Your task to perform on an android device: Open Google Chrome and click the shortcut for Amazon.com Image 0: 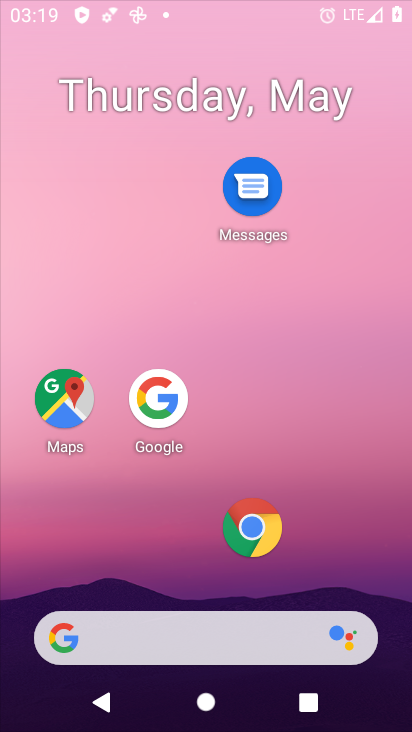
Step 0: drag from (245, 108) to (224, 154)
Your task to perform on an android device: Open Google Chrome and click the shortcut for Amazon.com Image 1: 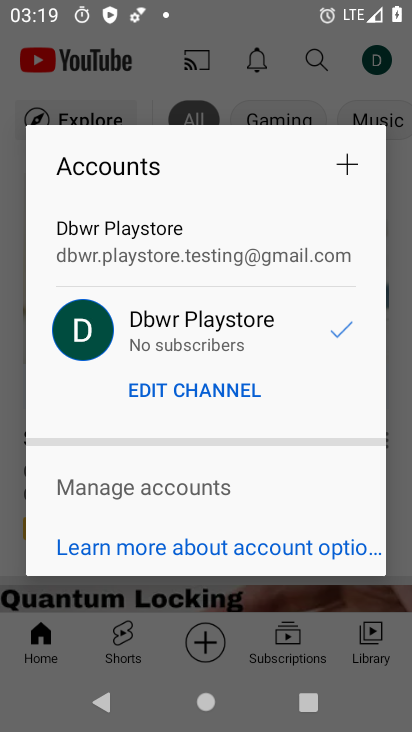
Step 1: press home button
Your task to perform on an android device: Open Google Chrome and click the shortcut for Amazon.com Image 2: 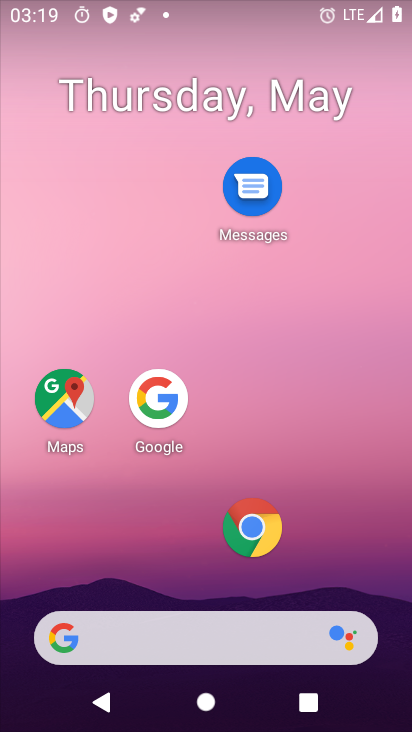
Step 2: drag from (196, 580) to (182, 91)
Your task to perform on an android device: Open Google Chrome and click the shortcut for Amazon.com Image 3: 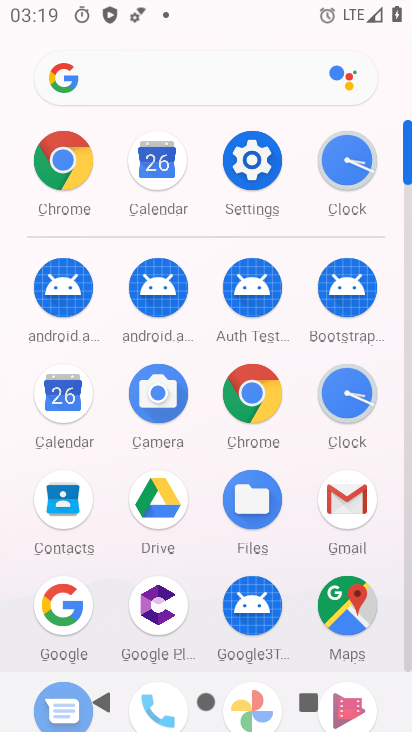
Step 3: click (253, 392)
Your task to perform on an android device: Open Google Chrome and click the shortcut for Amazon.com Image 4: 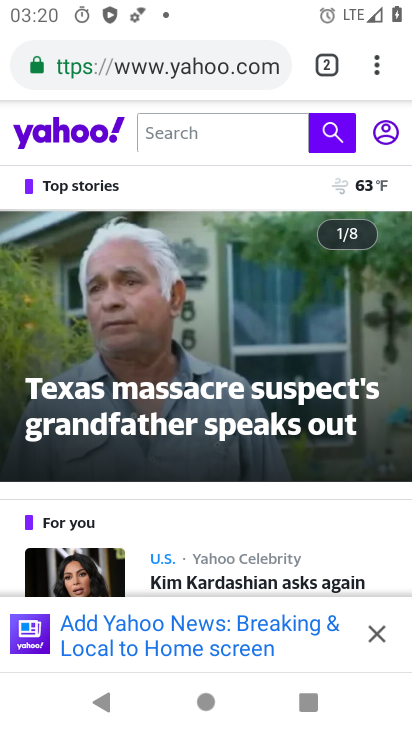
Step 4: click (319, 73)
Your task to perform on an android device: Open Google Chrome and click the shortcut for Amazon.com Image 5: 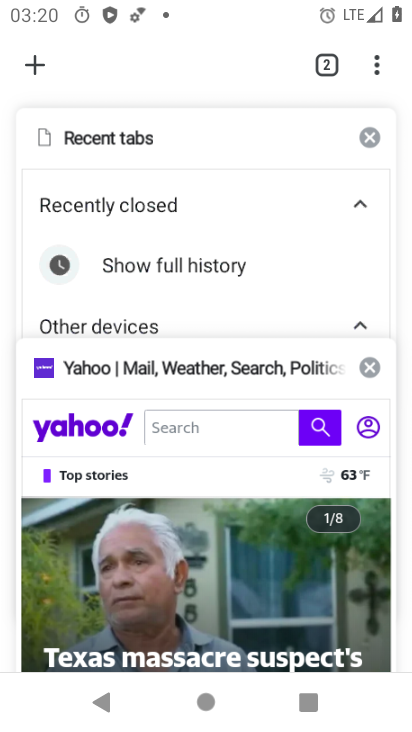
Step 5: click (37, 76)
Your task to perform on an android device: Open Google Chrome and click the shortcut for Amazon.com Image 6: 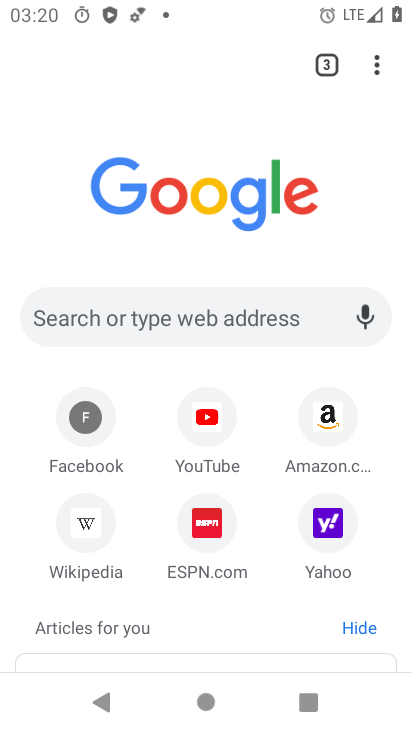
Step 6: click (324, 415)
Your task to perform on an android device: Open Google Chrome and click the shortcut for Amazon.com Image 7: 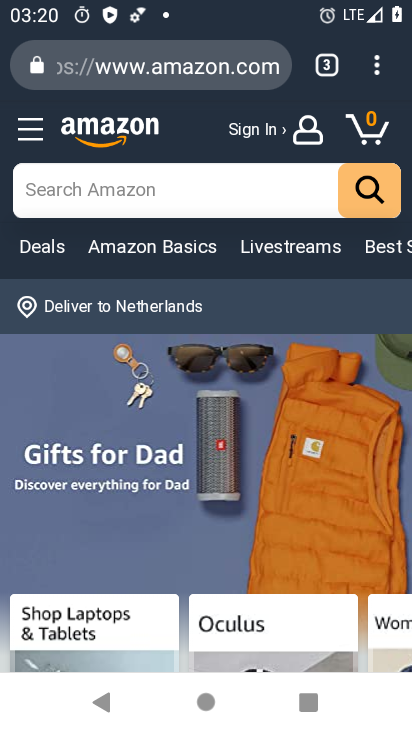
Step 7: click (260, 121)
Your task to perform on an android device: Open Google Chrome and click the shortcut for Amazon.com Image 8: 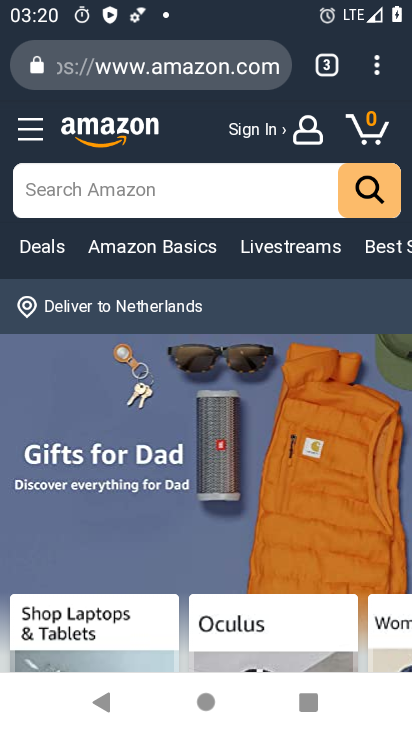
Step 8: task complete